Your task to perform on an android device: allow cookies in the chrome app Image 0: 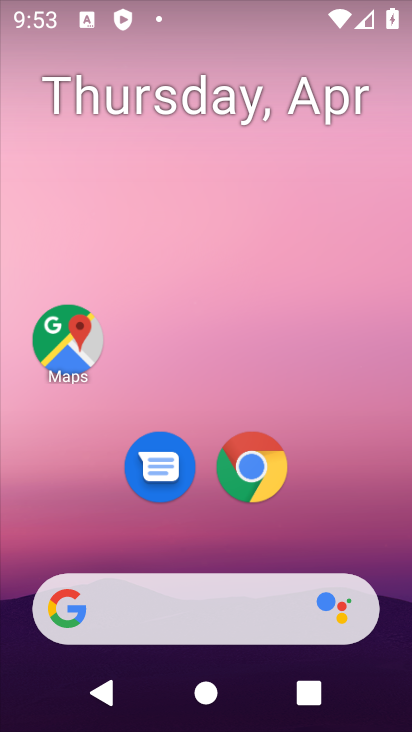
Step 0: click (246, 619)
Your task to perform on an android device: allow cookies in the chrome app Image 1: 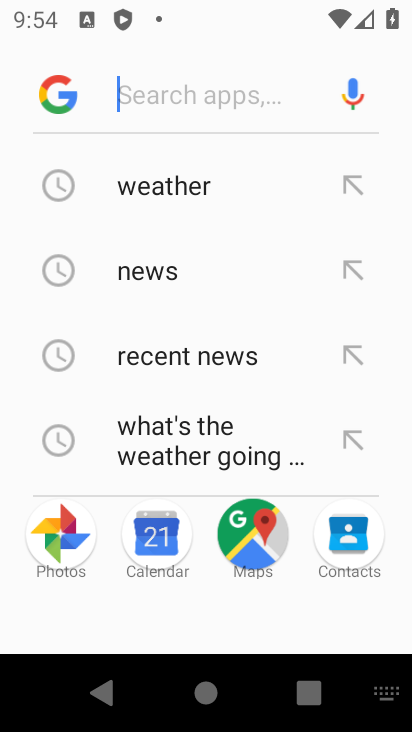
Step 1: type "cnn.com"
Your task to perform on an android device: allow cookies in the chrome app Image 2: 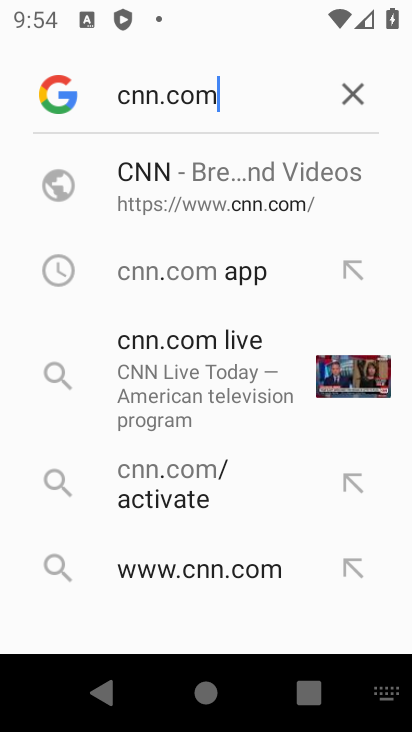
Step 2: click (277, 173)
Your task to perform on an android device: allow cookies in the chrome app Image 3: 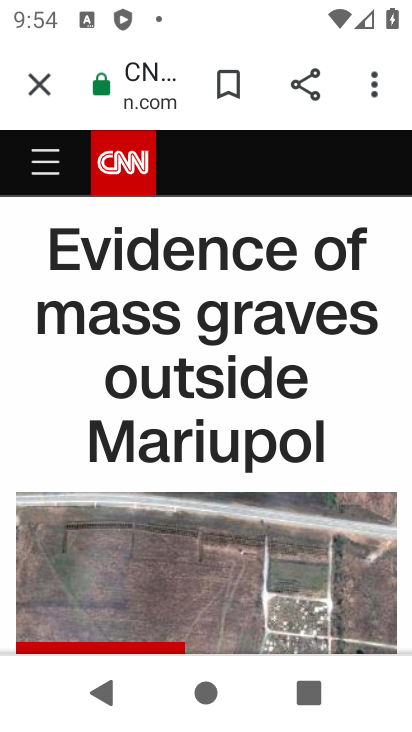
Step 3: task complete